Your task to perform on an android device: Is it going to rain this weekend? Image 0: 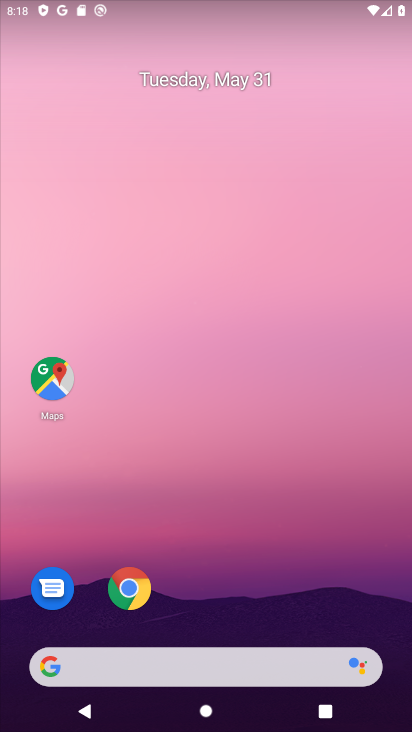
Step 0: drag from (249, 610) to (206, 349)
Your task to perform on an android device: Is it going to rain this weekend? Image 1: 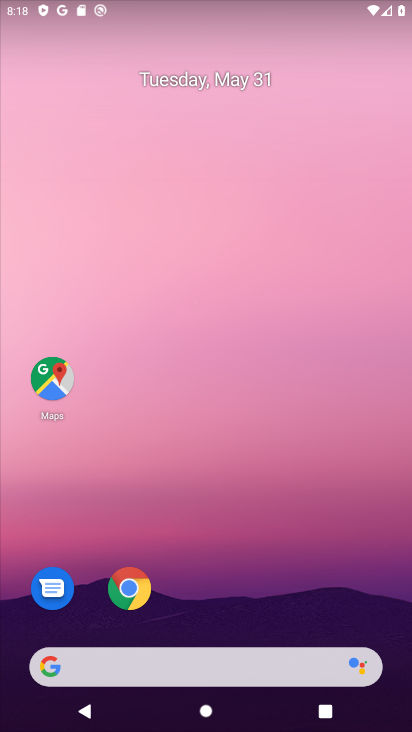
Step 1: click (318, 671)
Your task to perform on an android device: Is it going to rain this weekend? Image 2: 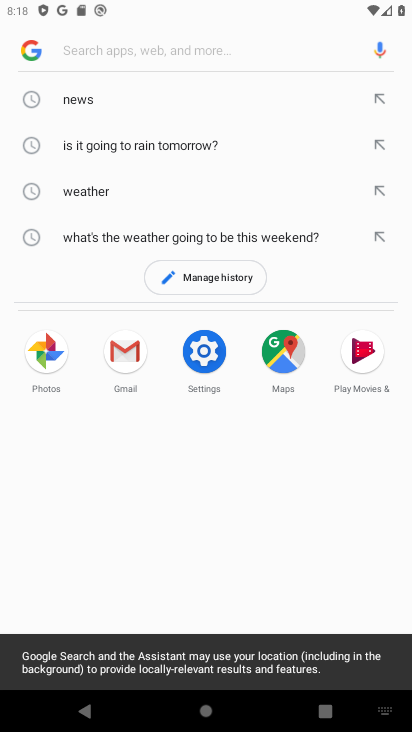
Step 2: click (152, 44)
Your task to perform on an android device: Is it going to rain this weekend? Image 3: 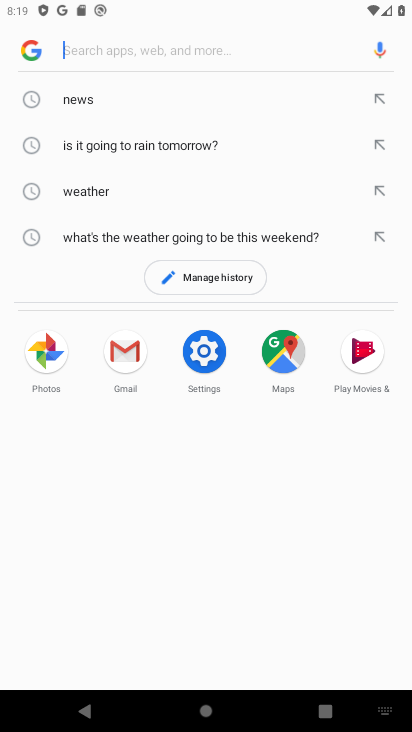
Step 3: type "Is it going to rain this weekend?"
Your task to perform on an android device: Is it going to rain this weekend? Image 4: 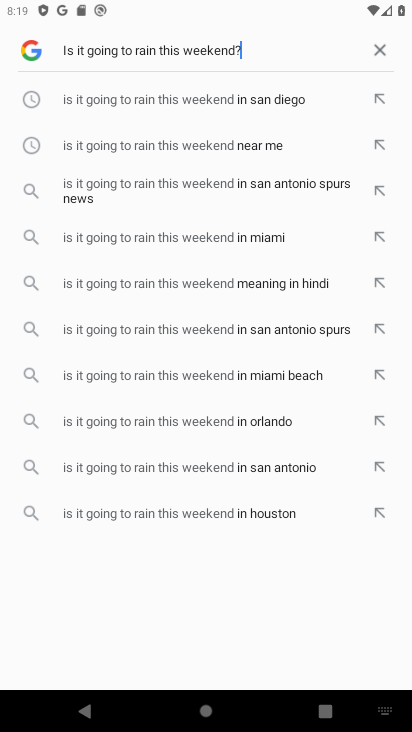
Step 4: press enter
Your task to perform on an android device: Is it going to rain this weekend? Image 5: 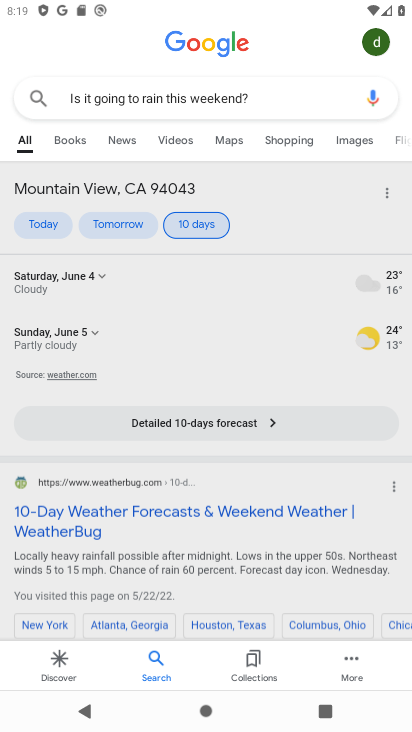
Step 5: task complete